Your task to perform on an android device: Open the web browser Image 0: 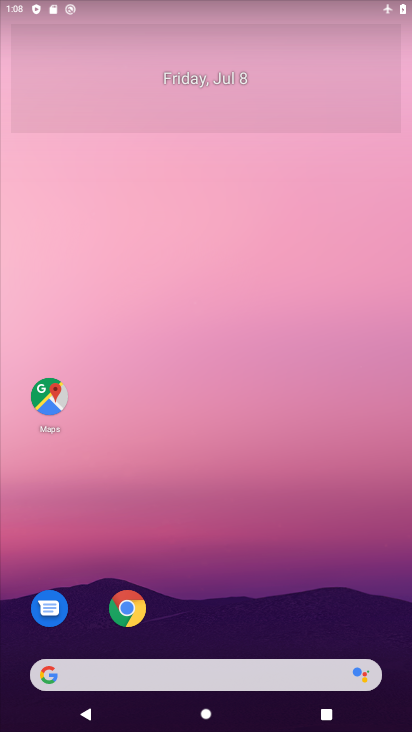
Step 0: click (129, 612)
Your task to perform on an android device: Open the web browser Image 1: 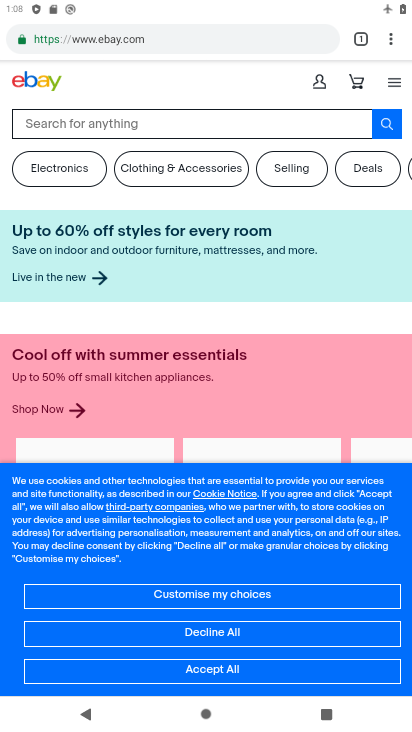
Step 1: task complete